Your task to perform on an android device: set the timer Image 0: 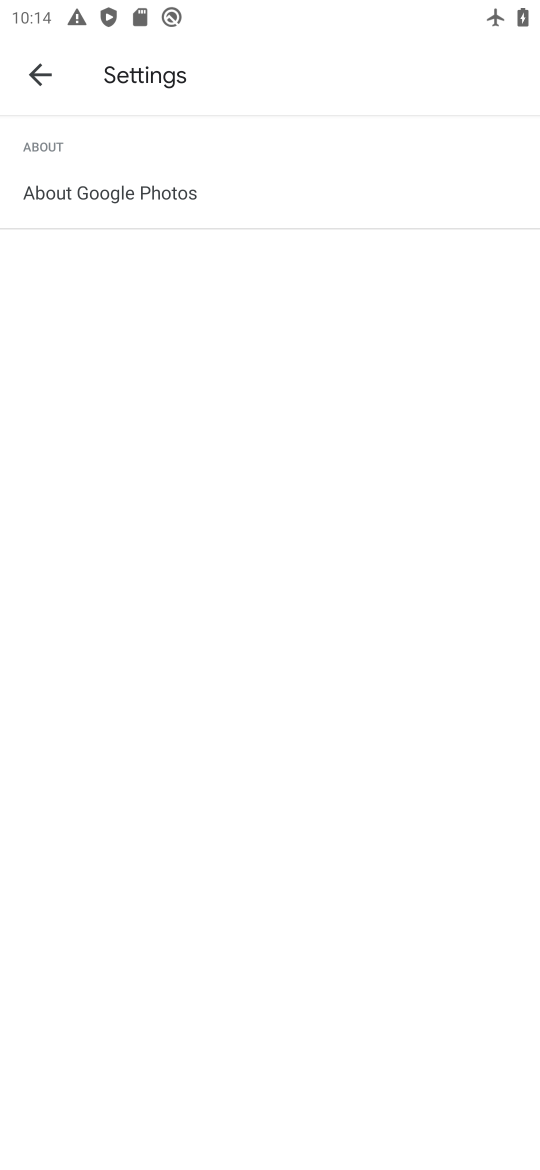
Step 0: press home button
Your task to perform on an android device: set the timer Image 1: 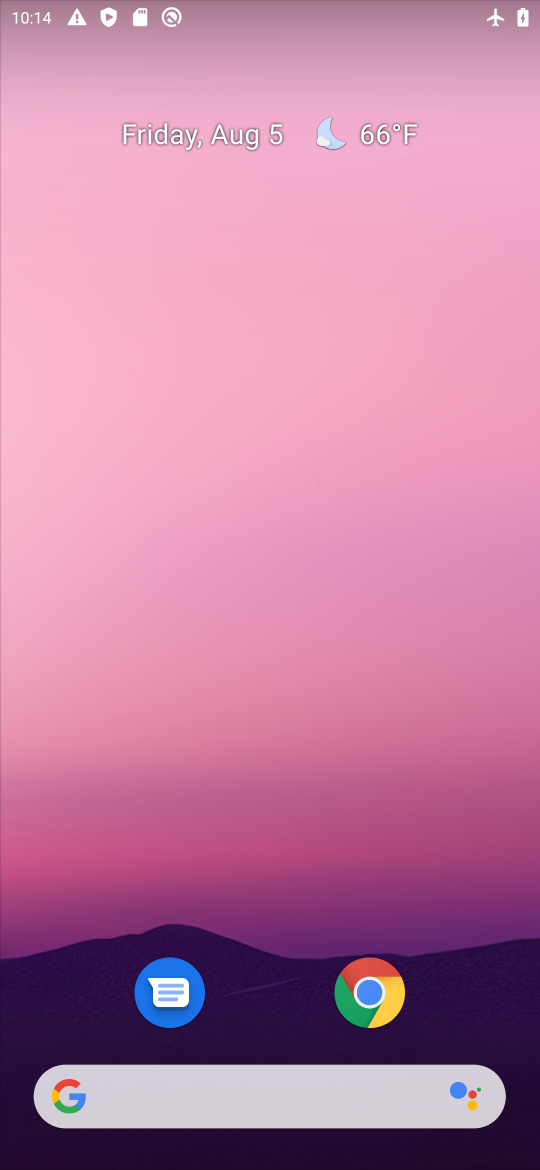
Step 1: drag from (260, 1062) to (376, 360)
Your task to perform on an android device: set the timer Image 2: 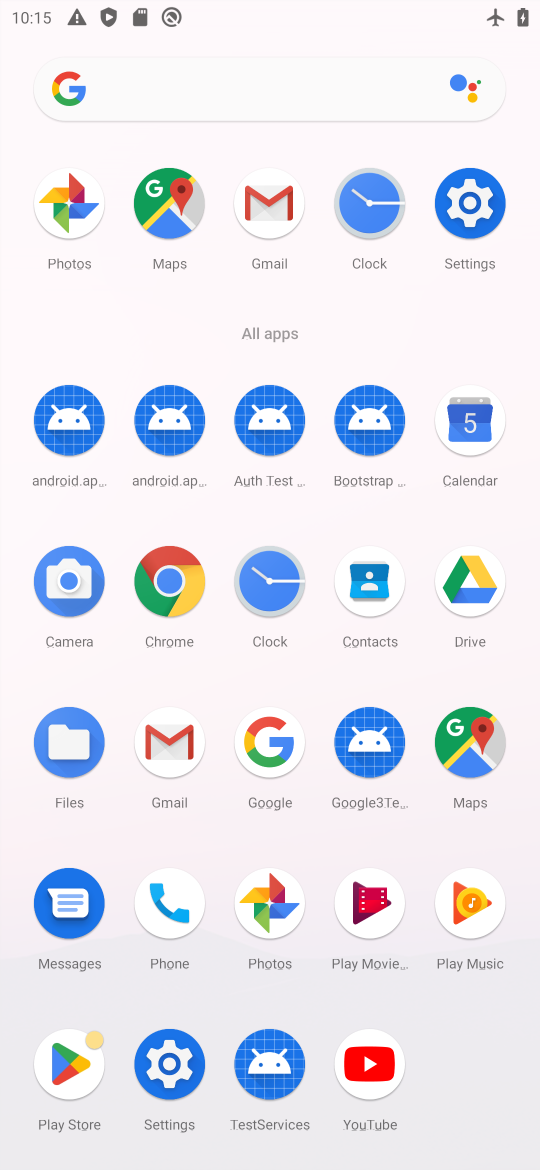
Step 2: click (274, 589)
Your task to perform on an android device: set the timer Image 3: 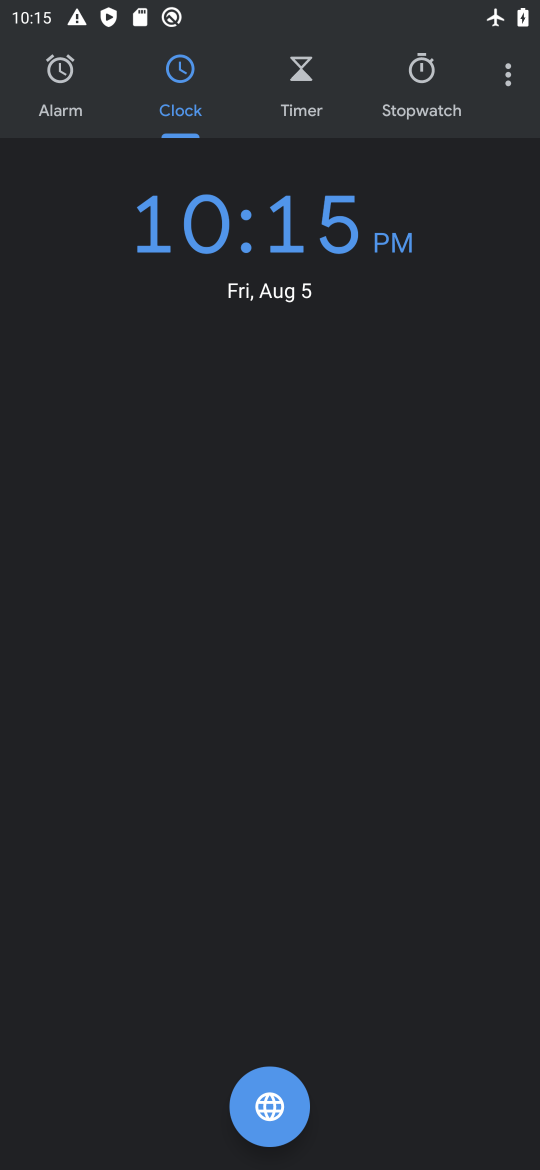
Step 3: click (321, 92)
Your task to perform on an android device: set the timer Image 4: 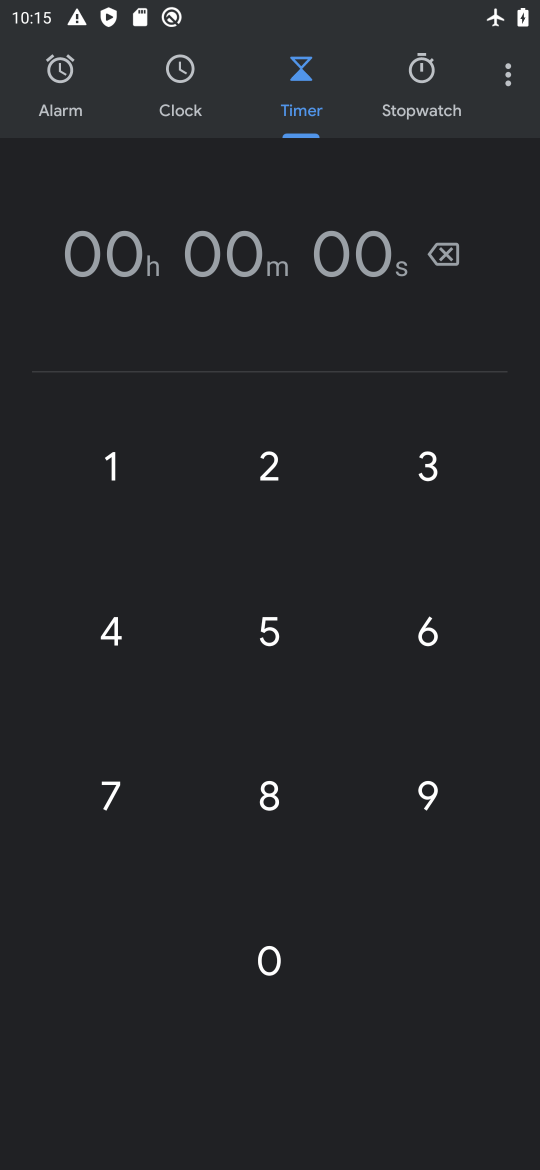
Step 4: click (289, 474)
Your task to perform on an android device: set the timer Image 5: 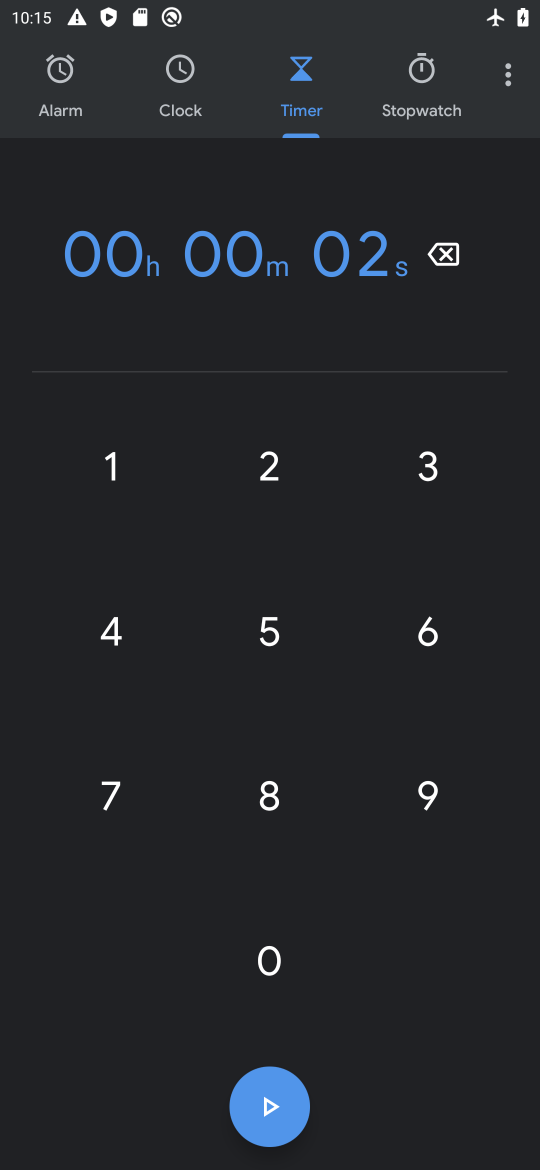
Step 5: click (273, 1128)
Your task to perform on an android device: set the timer Image 6: 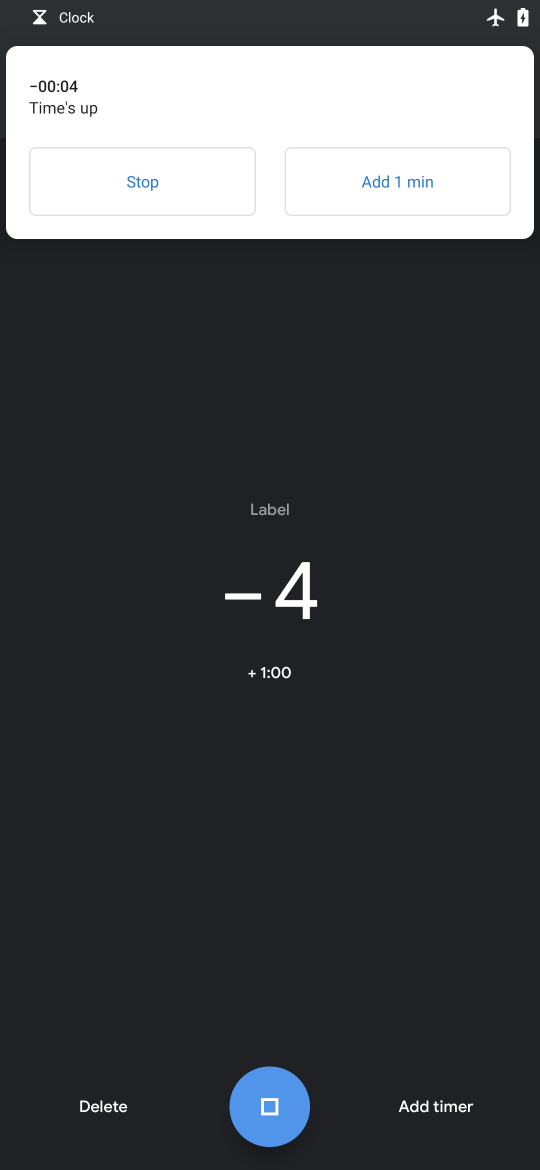
Step 6: task complete